Your task to perform on an android device: What's the weather like in San Francisco? Image 0: 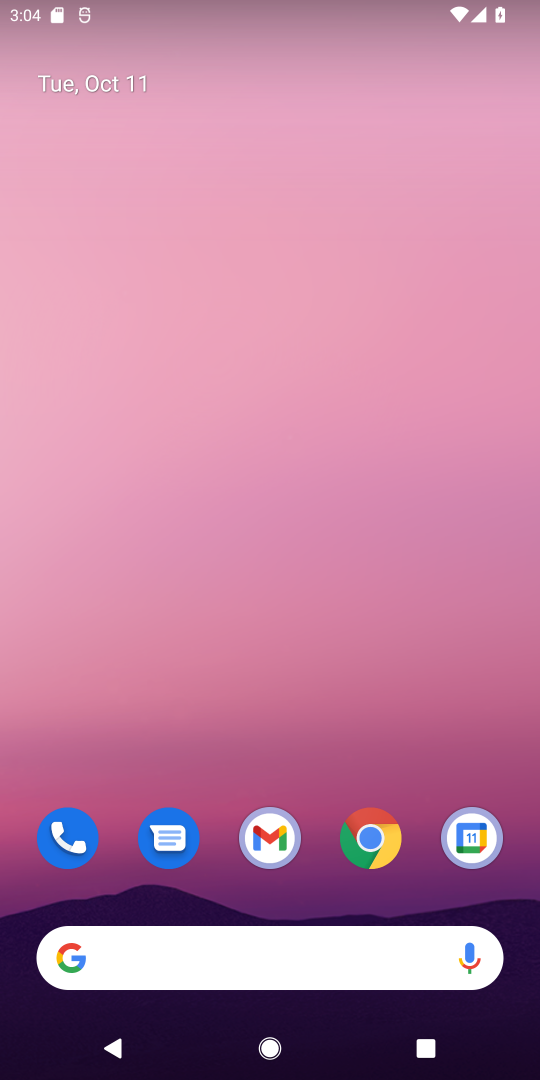
Step 0: click (348, 845)
Your task to perform on an android device: What's the weather like in San Francisco? Image 1: 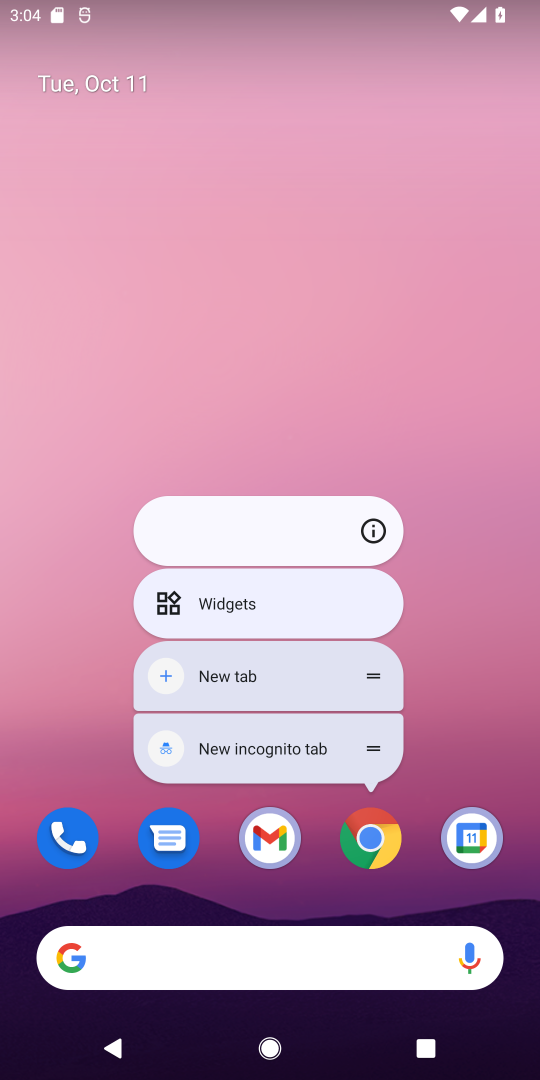
Step 1: click (367, 859)
Your task to perform on an android device: What's the weather like in San Francisco? Image 2: 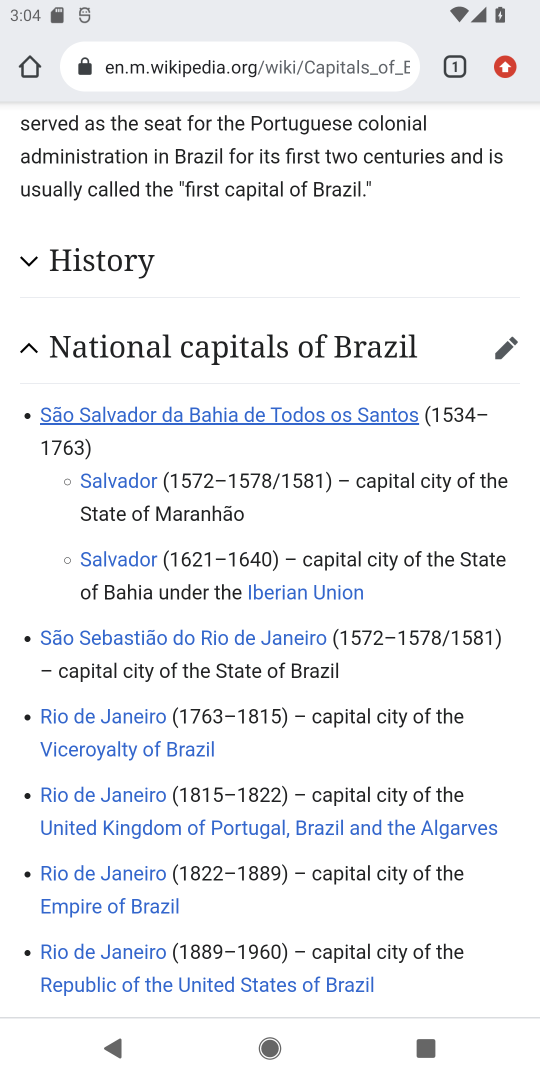
Step 2: click (268, 63)
Your task to perform on an android device: What's the weather like in San Francisco? Image 3: 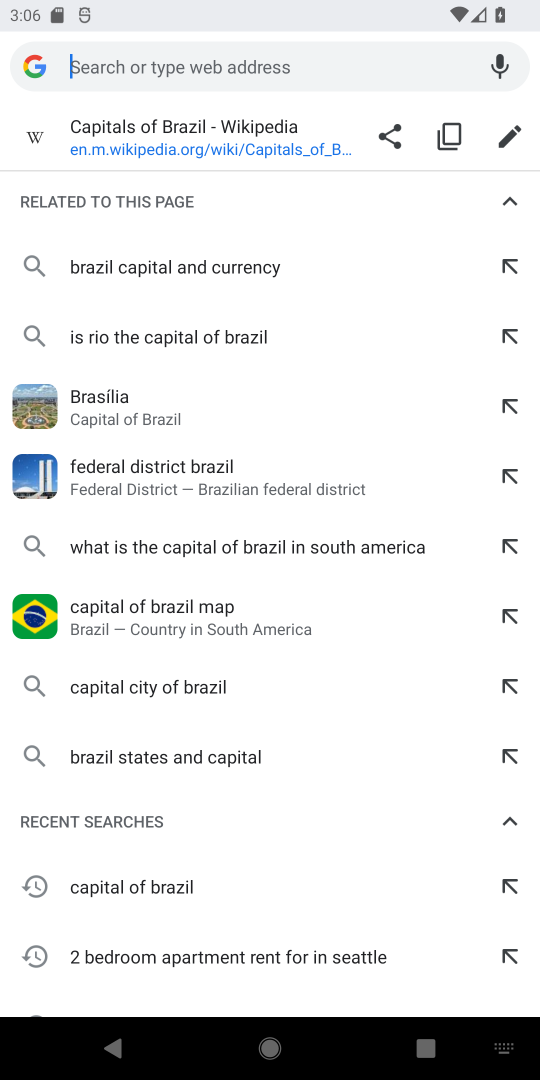
Step 3: type "weather like in san francisco"
Your task to perform on an android device: What's the weather like in San Francisco? Image 4: 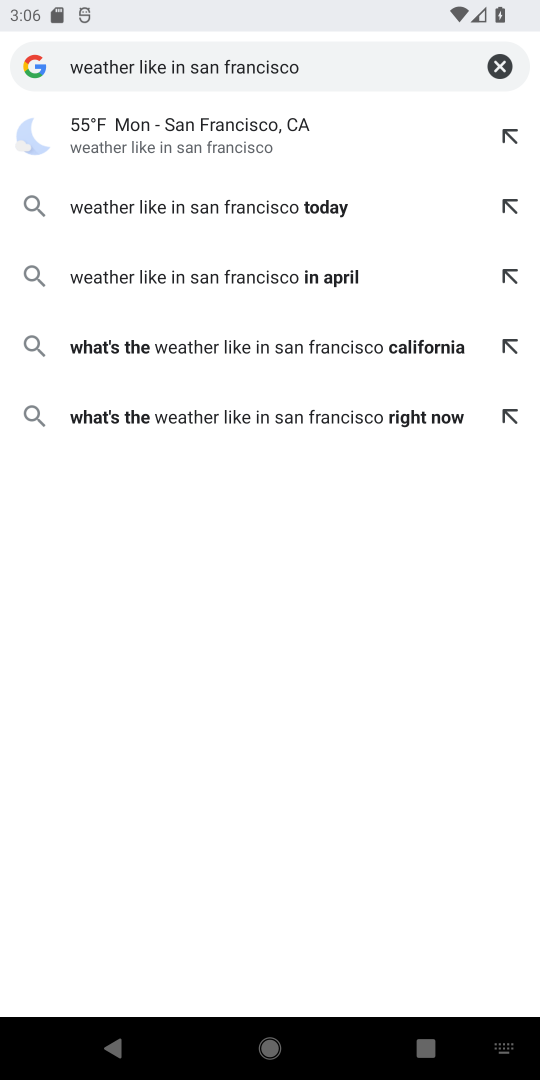
Step 4: click (156, 205)
Your task to perform on an android device: What's the weather like in San Francisco? Image 5: 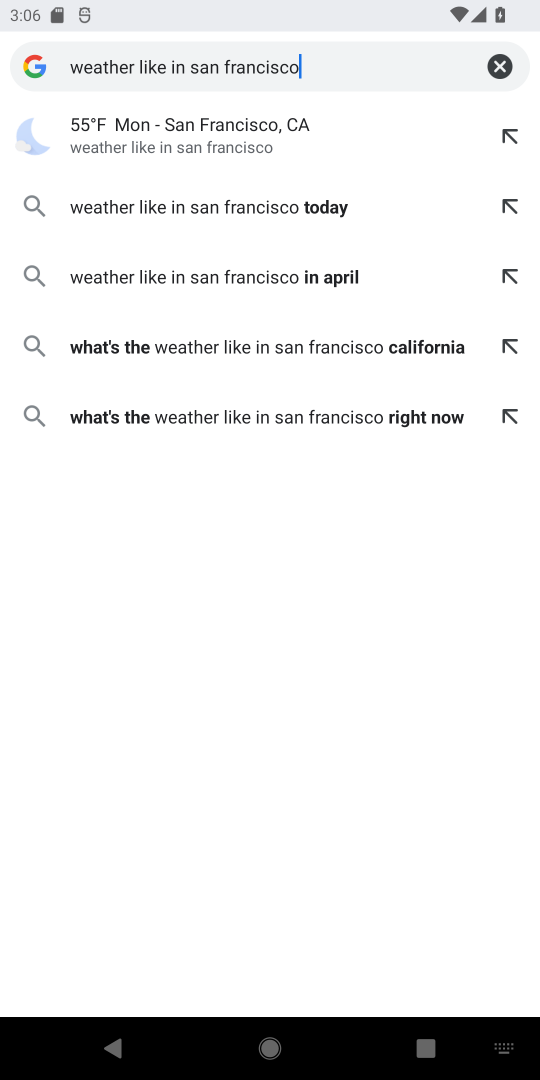
Step 5: click (268, 202)
Your task to perform on an android device: What's the weather like in San Francisco? Image 6: 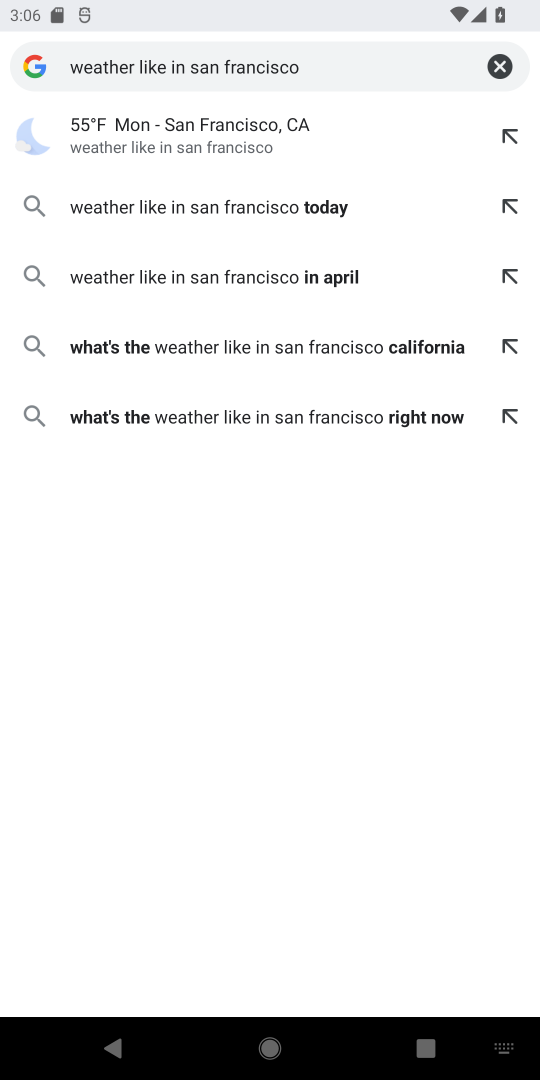
Step 6: click (86, 209)
Your task to perform on an android device: What's the weather like in San Francisco? Image 7: 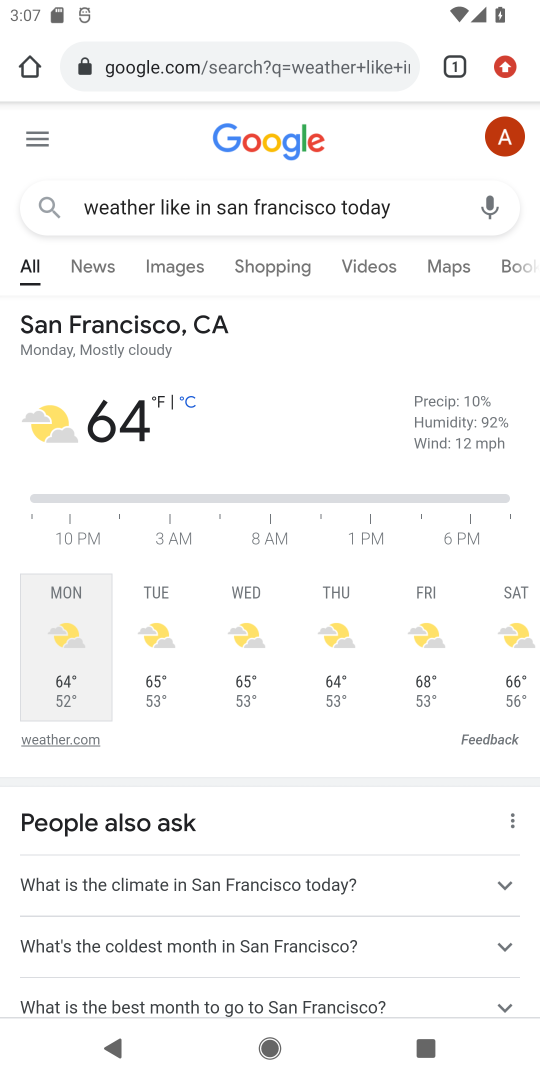
Step 7: task complete